Your task to perform on an android device: Go to Yahoo.com Image 0: 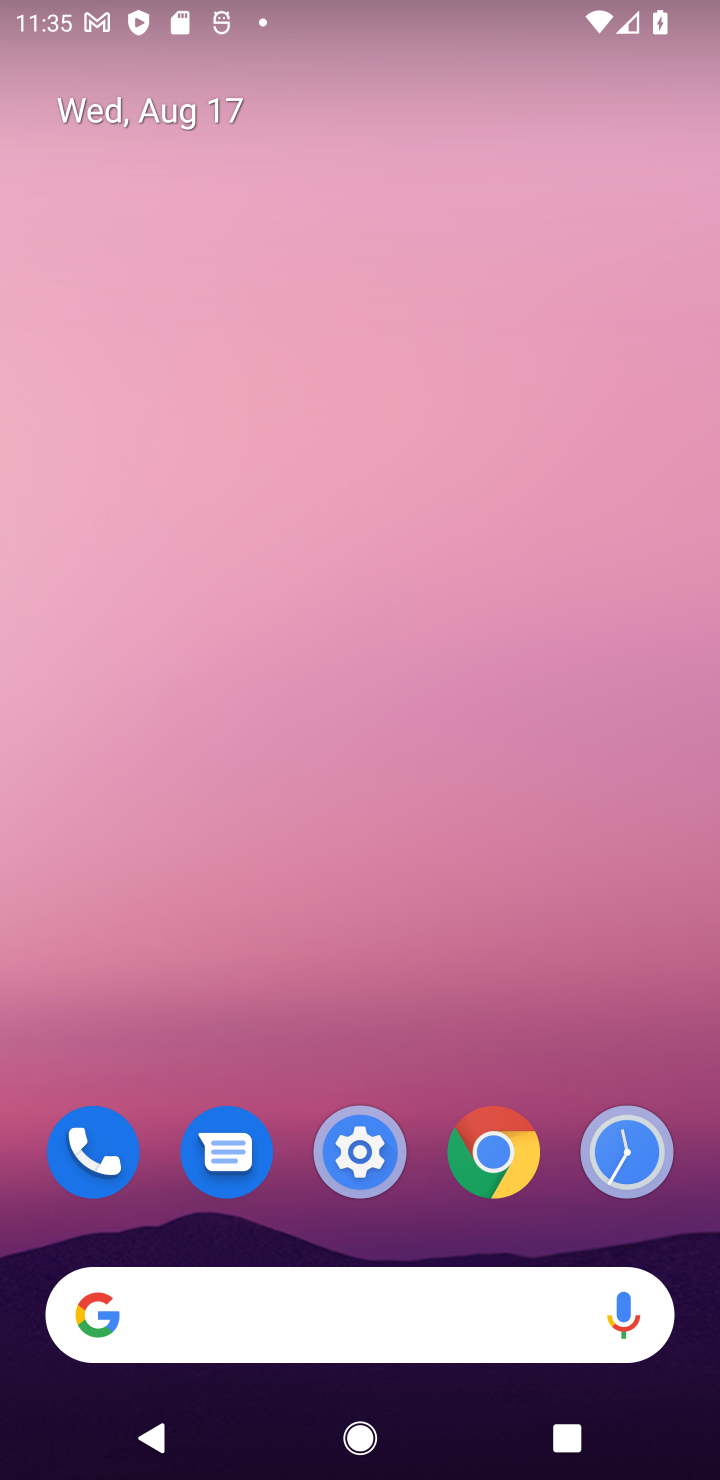
Step 0: drag from (695, 1253) to (451, 63)
Your task to perform on an android device: Go to Yahoo.com Image 1: 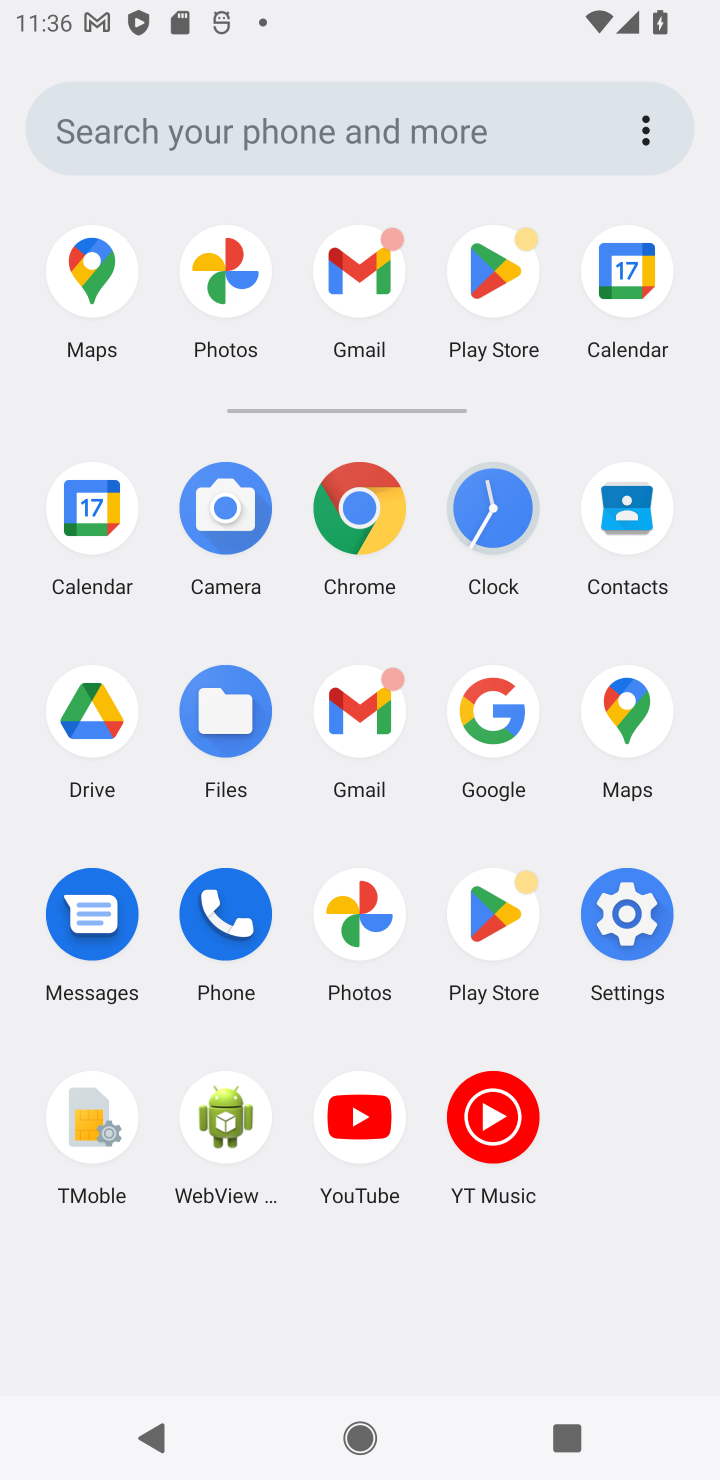
Step 1: click (510, 719)
Your task to perform on an android device: Go to Yahoo.com Image 2: 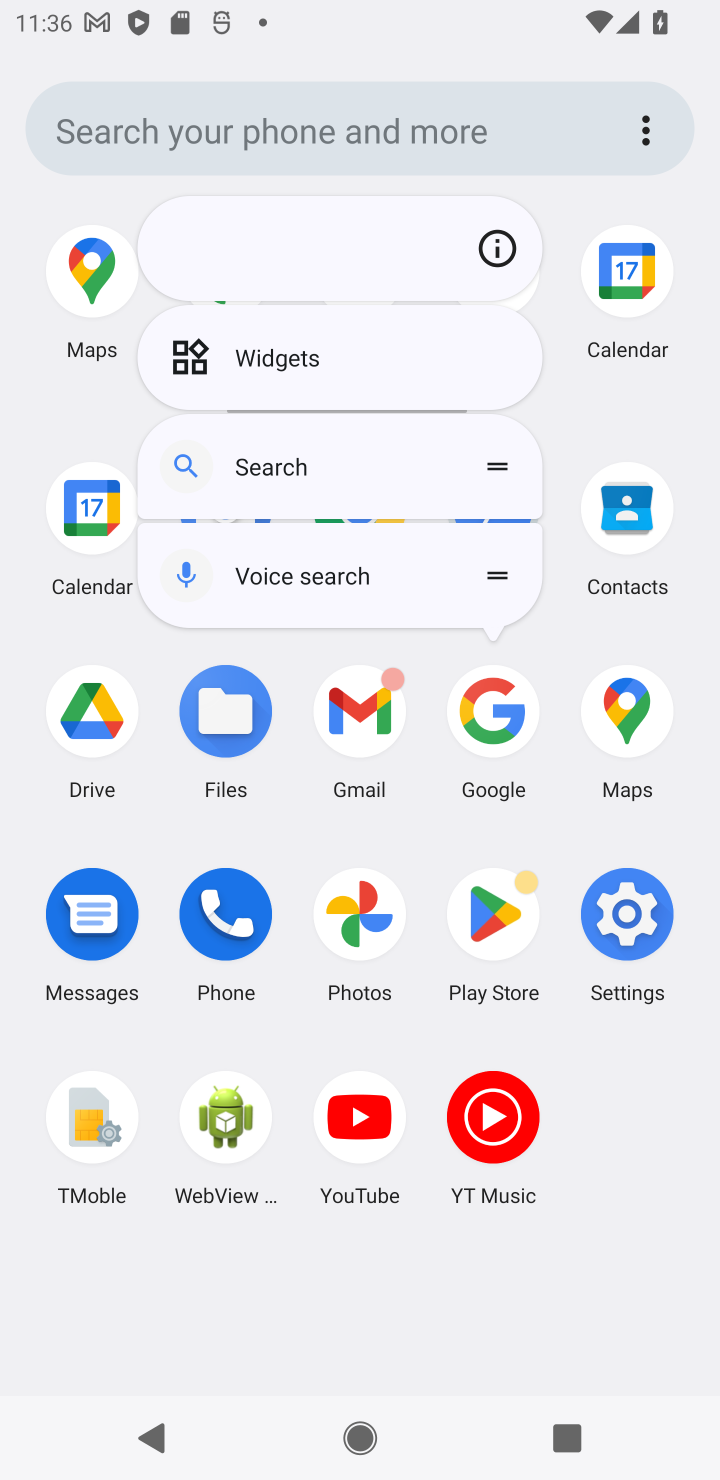
Step 2: click (510, 719)
Your task to perform on an android device: Go to Yahoo.com Image 3: 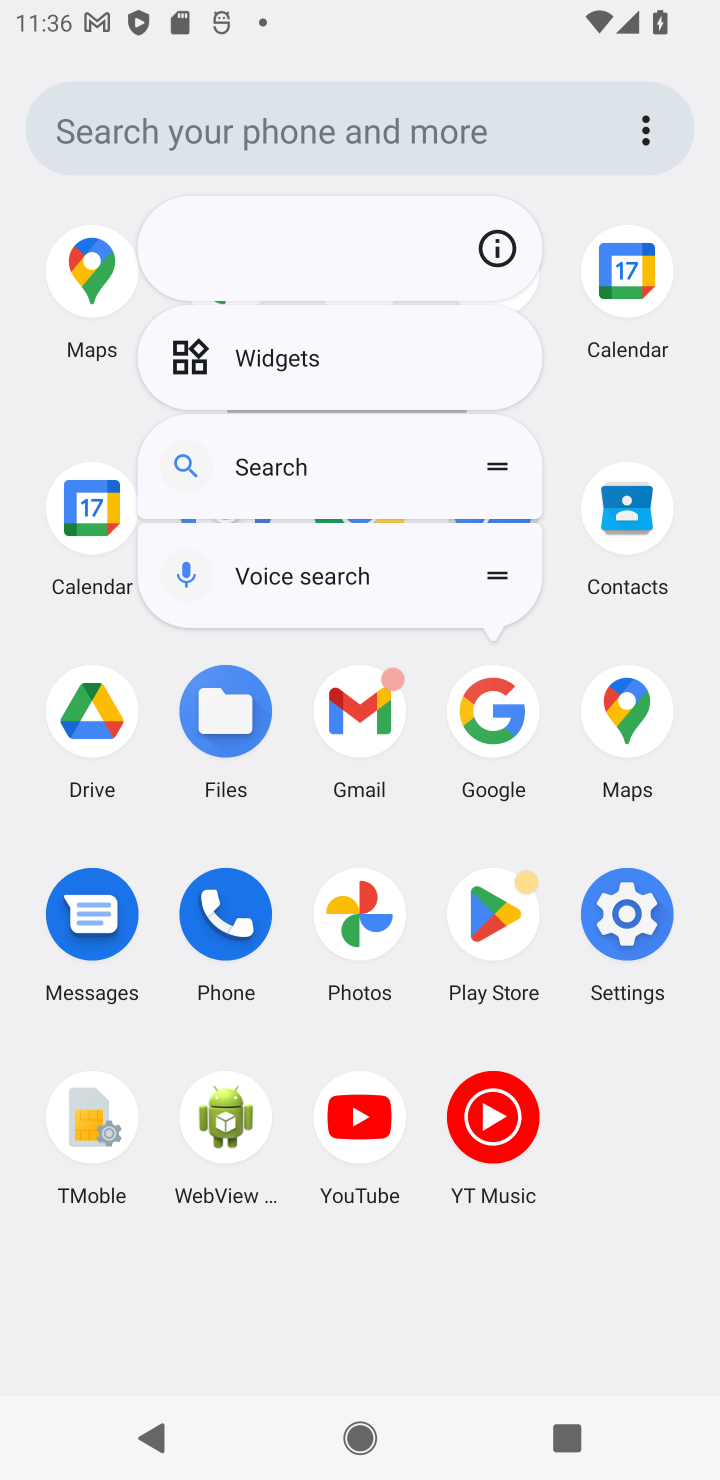
Step 3: click (508, 721)
Your task to perform on an android device: Go to Yahoo.com Image 4: 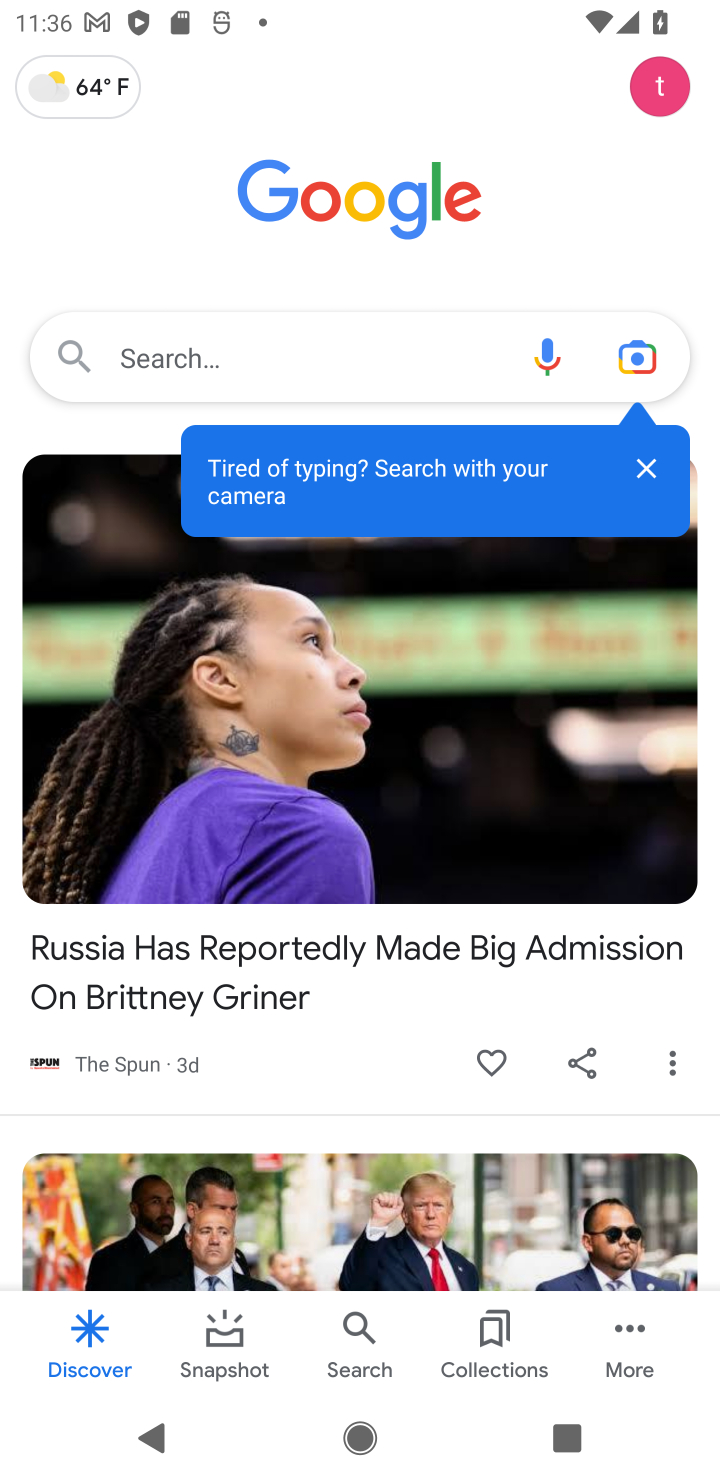
Step 4: click (178, 373)
Your task to perform on an android device: Go to Yahoo.com Image 5: 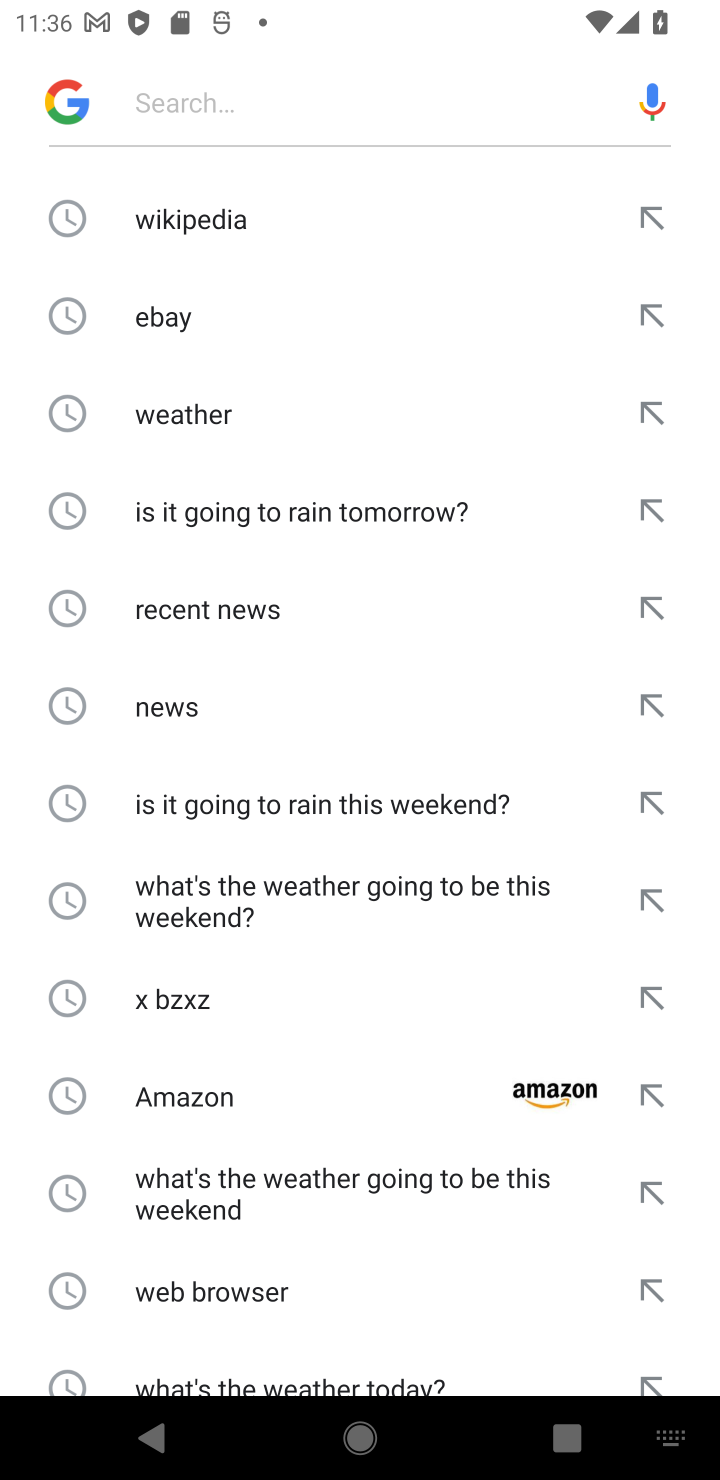
Step 5: type "Yahoo.com"
Your task to perform on an android device: Go to Yahoo.com Image 6: 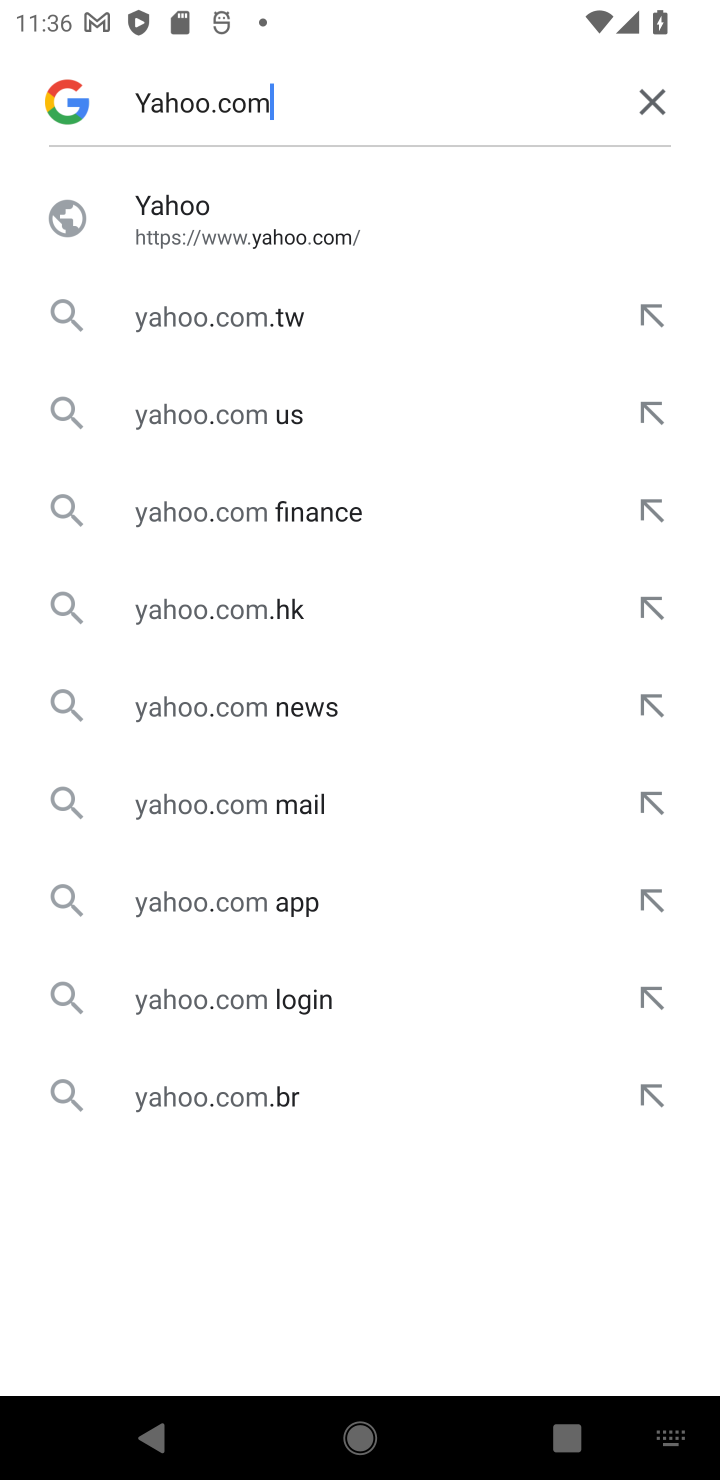
Step 6: click (241, 242)
Your task to perform on an android device: Go to Yahoo.com Image 7: 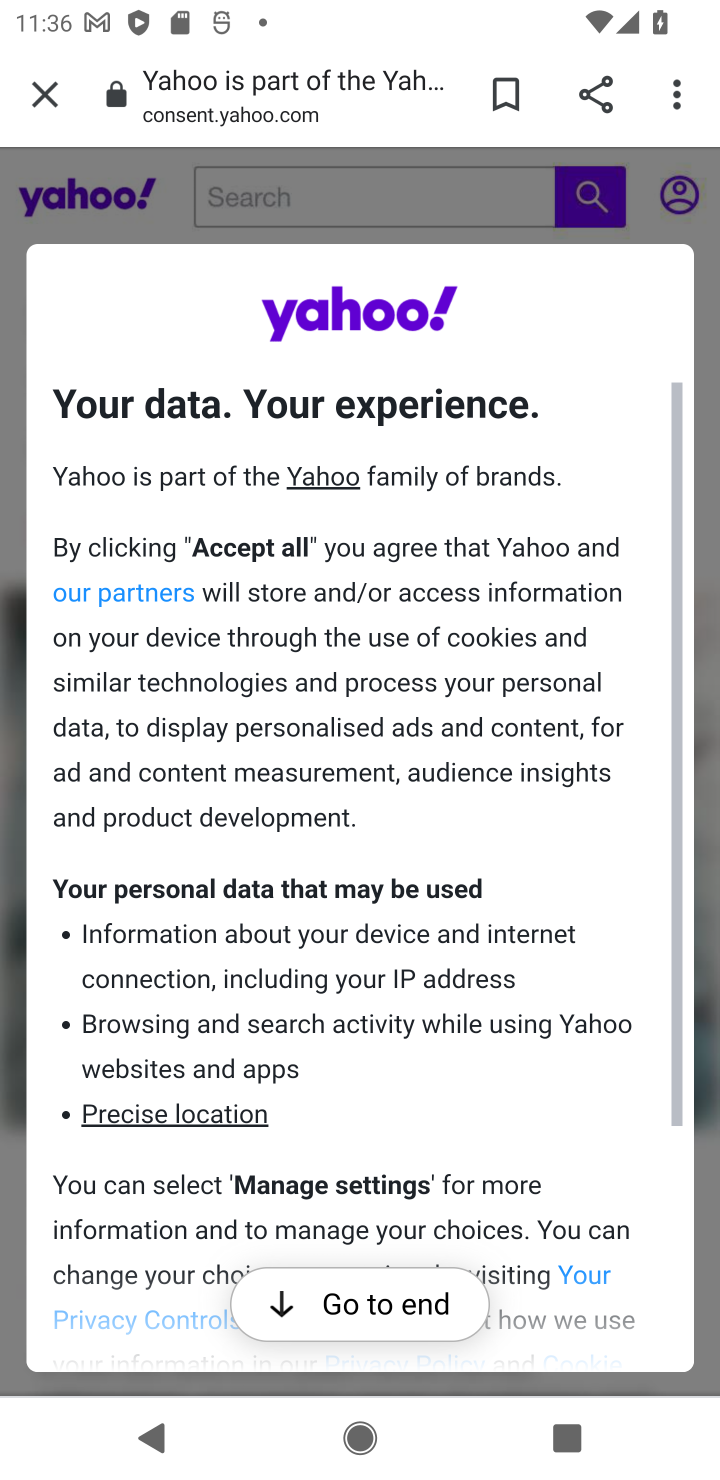
Step 7: task complete